Your task to perform on an android device: toggle sleep mode Image 0: 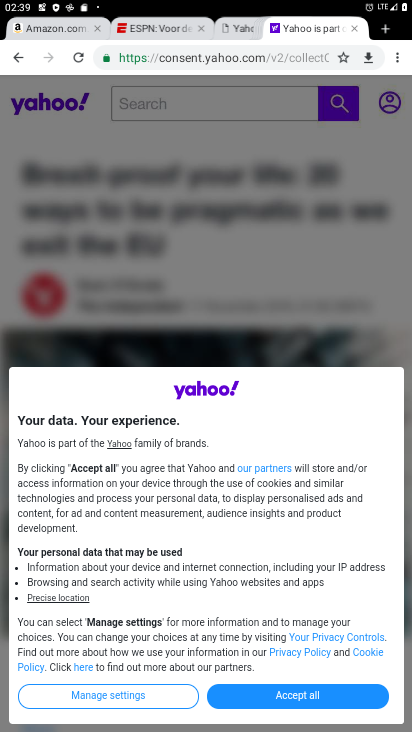
Step 0: press home button
Your task to perform on an android device: toggle sleep mode Image 1: 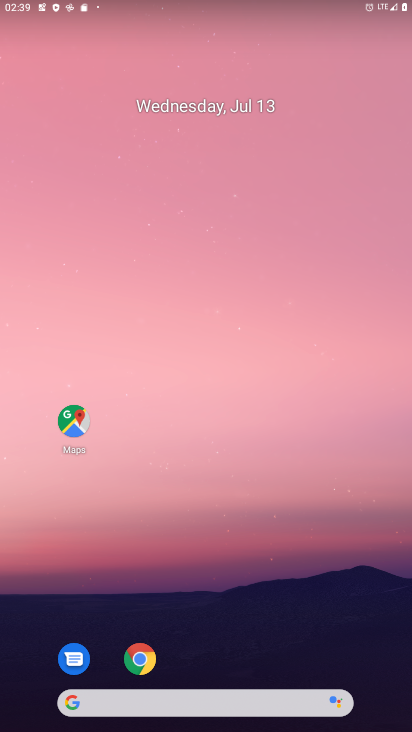
Step 1: drag from (221, 711) to (222, 639)
Your task to perform on an android device: toggle sleep mode Image 2: 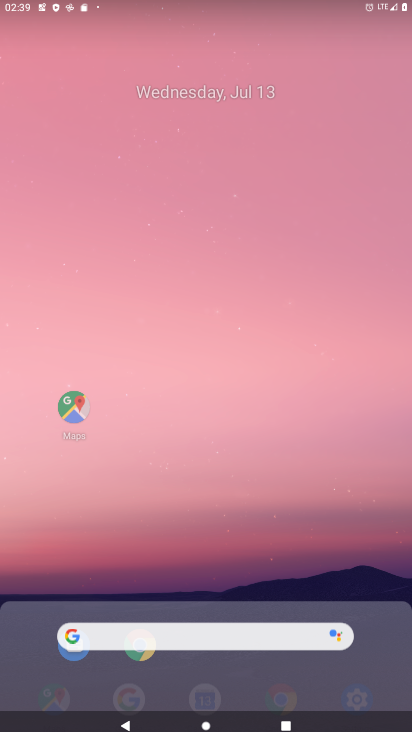
Step 2: click (222, 128)
Your task to perform on an android device: toggle sleep mode Image 3: 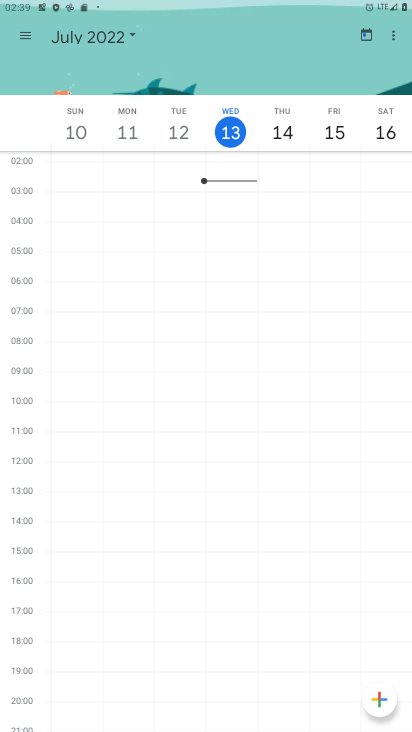
Step 3: press home button
Your task to perform on an android device: toggle sleep mode Image 4: 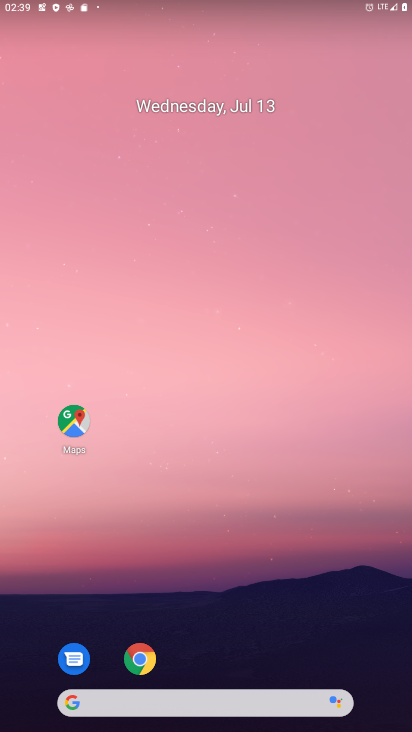
Step 4: drag from (232, 709) to (221, 81)
Your task to perform on an android device: toggle sleep mode Image 5: 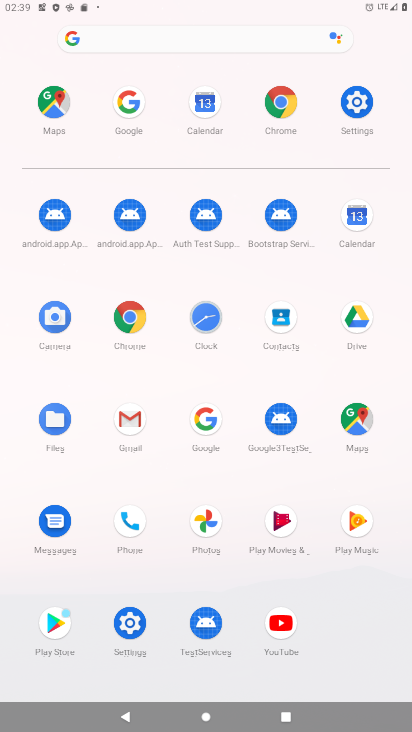
Step 5: click (353, 100)
Your task to perform on an android device: toggle sleep mode Image 6: 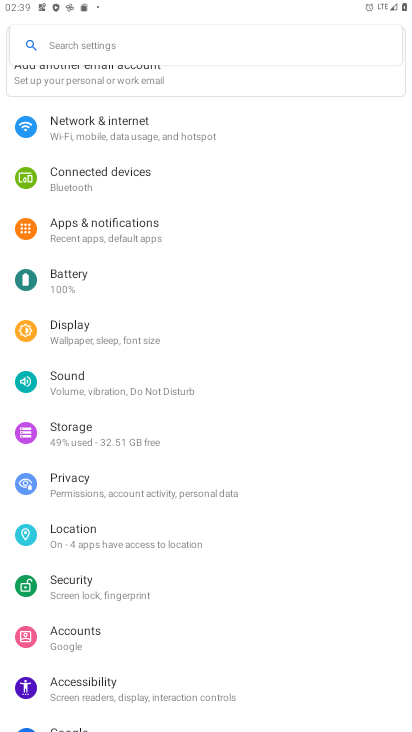
Step 6: click (119, 343)
Your task to perform on an android device: toggle sleep mode Image 7: 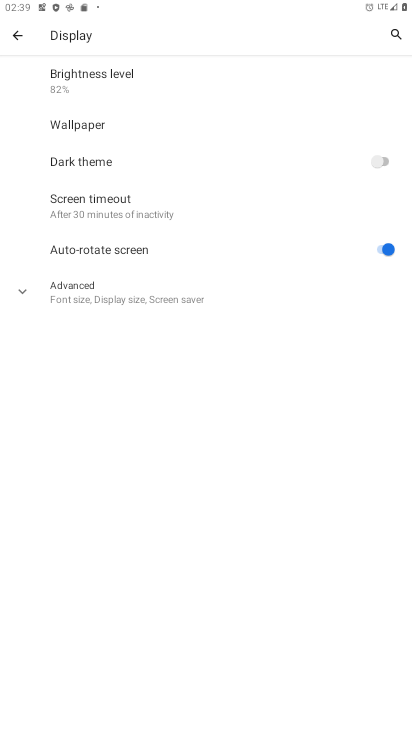
Step 7: click (23, 31)
Your task to perform on an android device: toggle sleep mode Image 8: 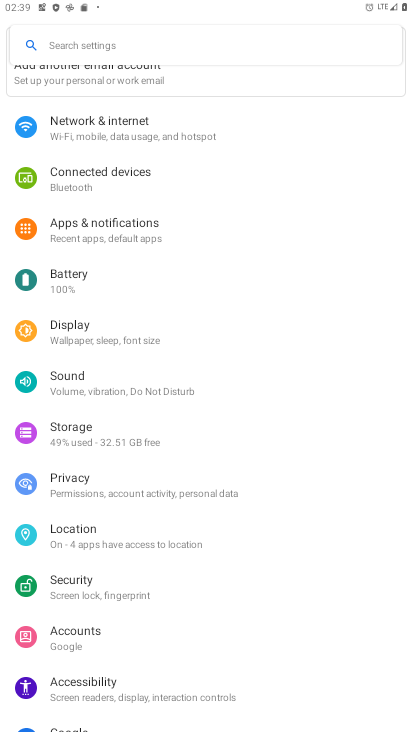
Step 8: task complete